Your task to perform on an android device: What's the weather going to be this weekend? Image 0: 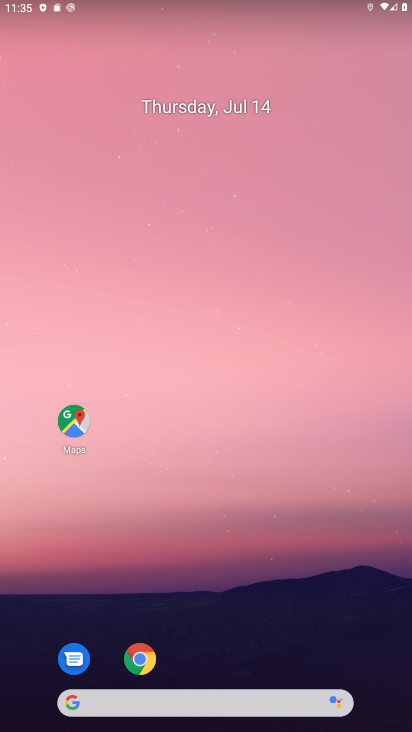
Step 0: click (135, 657)
Your task to perform on an android device: What's the weather going to be this weekend? Image 1: 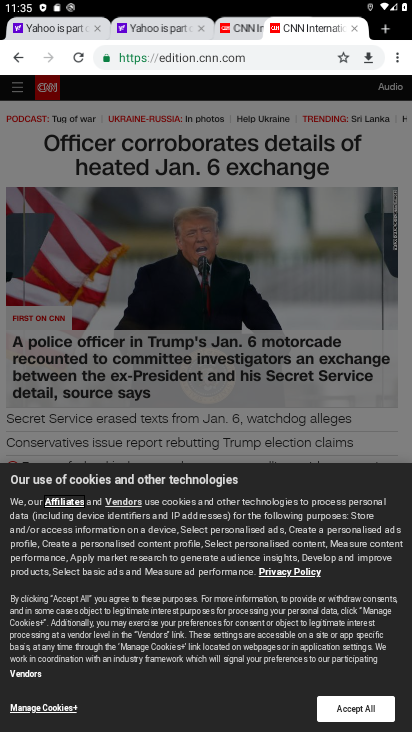
Step 1: click (384, 26)
Your task to perform on an android device: What's the weather going to be this weekend? Image 2: 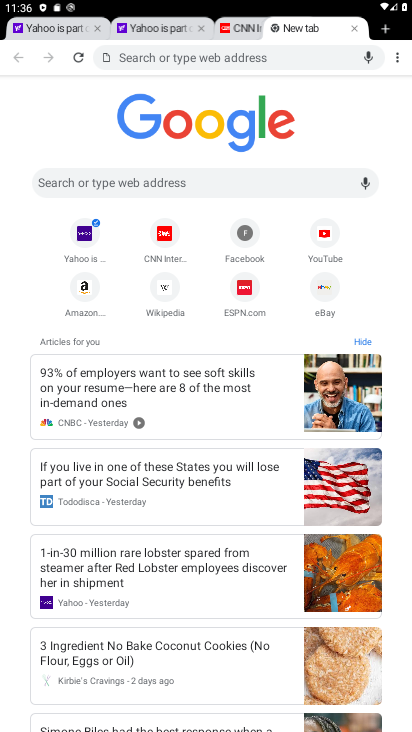
Step 2: click (172, 174)
Your task to perform on an android device: What's the weather going to be this weekend? Image 3: 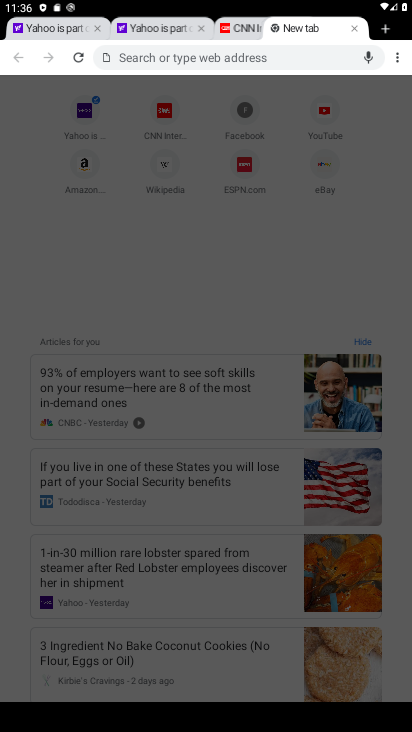
Step 3: type "What's the weather going to be this weekend "
Your task to perform on an android device: What's the weather going to be this weekend? Image 4: 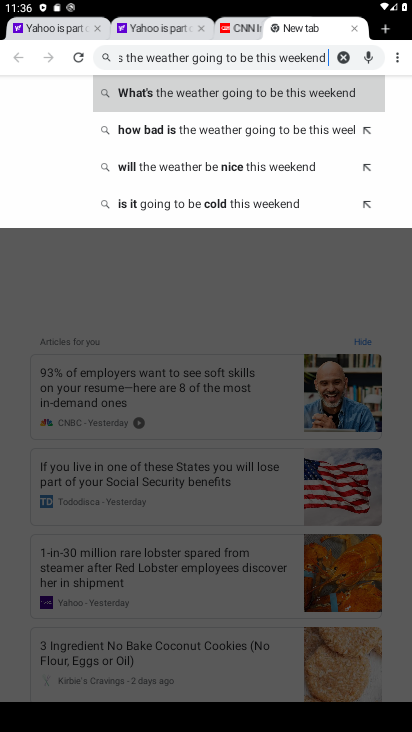
Step 4: click (267, 97)
Your task to perform on an android device: What's the weather going to be this weekend? Image 5: 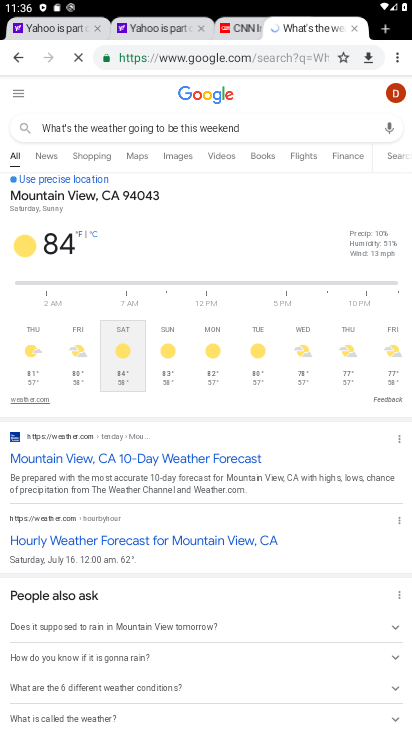
Step 5: task complete